Your task to perform on an android device: allow cookies in the chrome app Image 0: 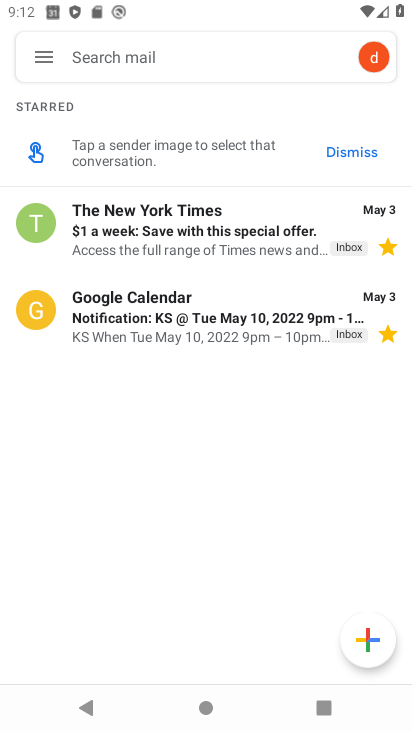
Step 0: press home button
Your task to perform on an android device: allow cookies in the chrome app Image 1: 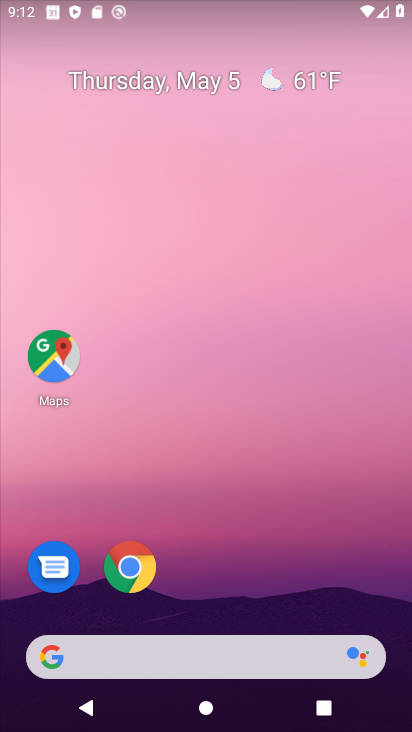
Step 1: click (130, 566)
Your task to perform on an android device: allow cookies in the chrome app Image 2: 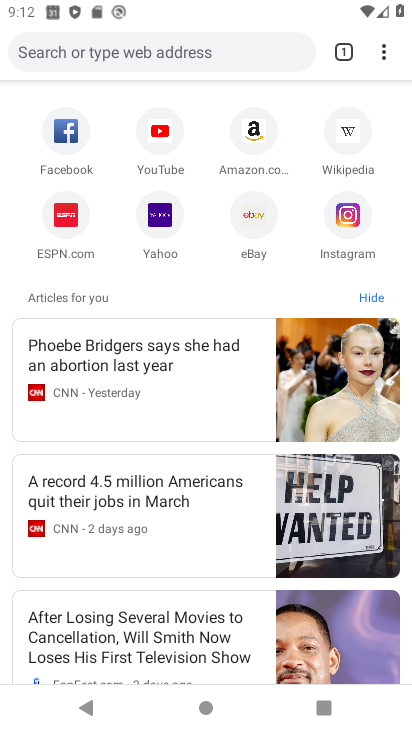
Step 2: drag from (383, 54) to (213, 432)
Your task to perform on an android device: allow cookies in the chrome app Image 3: 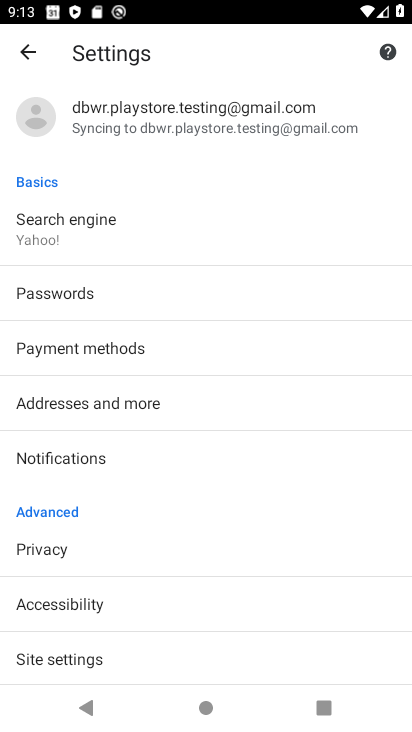
Step 3: click (77, 660)
Your task to perform on an android device: allow cookies in the chrome app Image 4: 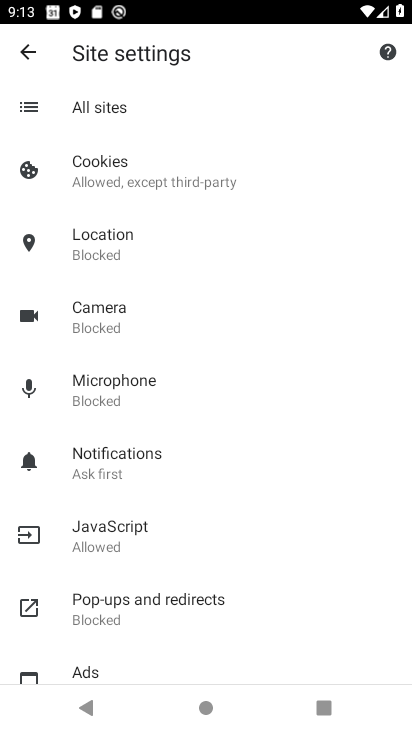
Step 4: click (110, 169)
Your task to perform on an android device: allow cookies in the chrome app Image 5: 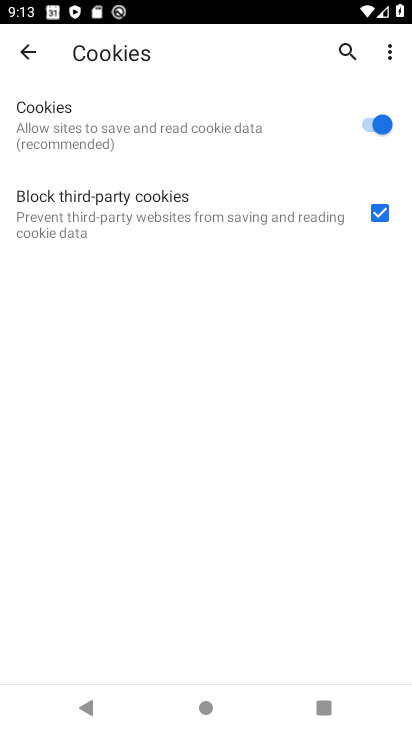
Step 5: task complete